Your task to perform on an android device: search for starred emails in the gmail app Image 0: 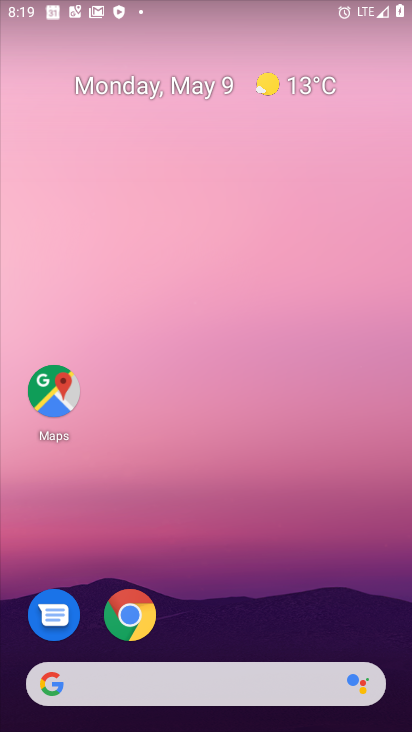
Step 0: drag from (215, 596) to (264, 36)
Your task to perform on an android device: search for starred emails in the gmail app Image 1: 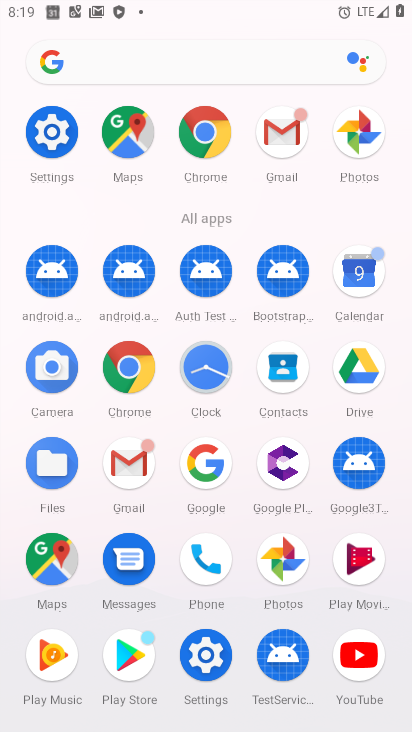
Step 1: click (265, 138)
Your task to perform on an android device: search for starred emails in the gmail app Image 2: 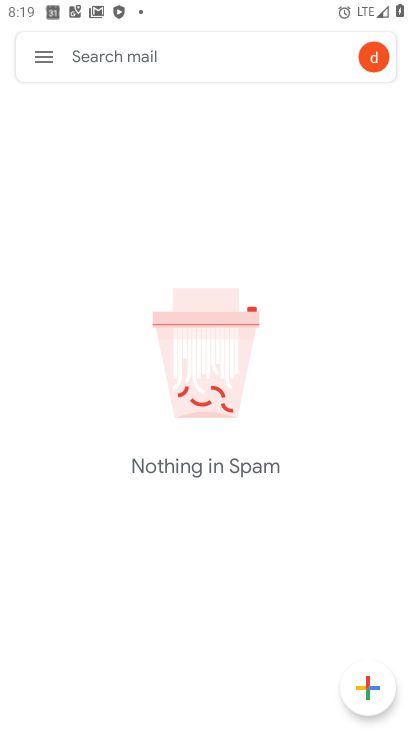
Step 2: click (33, 64)
Your task to perform on an android device: search for starred emails in the gmail app Image 3: 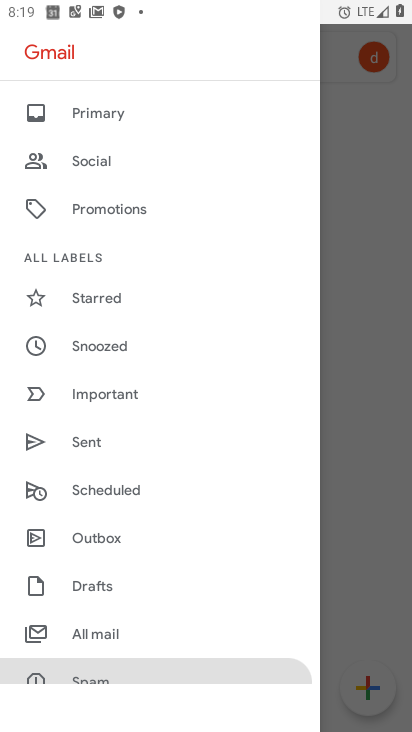
Step 3: click (130, 309)
Your task to perform on an android device: search for starred emails in the gmail app Image 4: 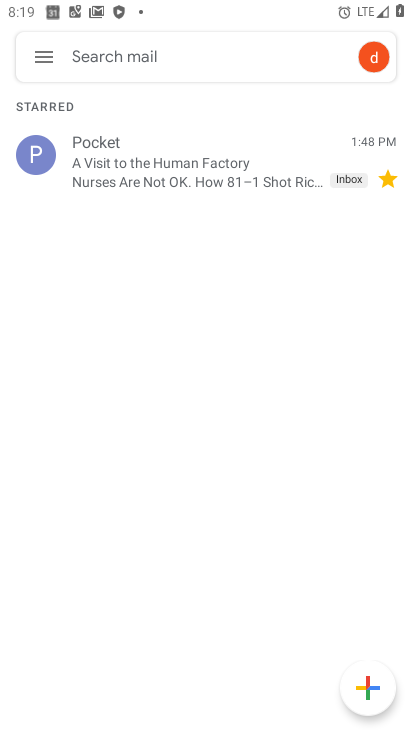
Step 4: task complete